Your task to perform on an android device: Open Google Image 0: 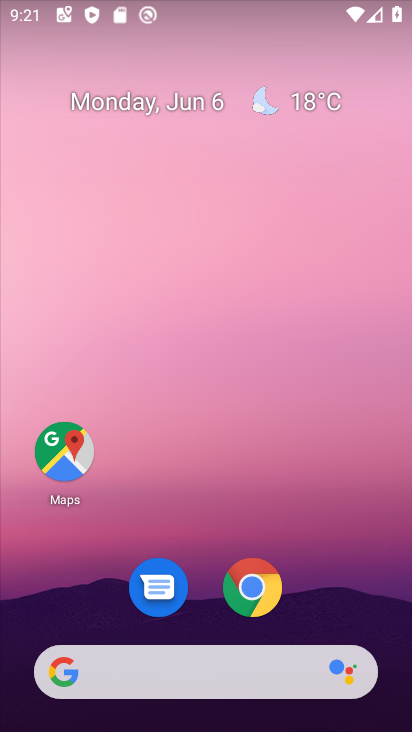
Step 0: drag from (314, 578) to (334, 18)
Your task to perform on an android device: Open Google Image 1: 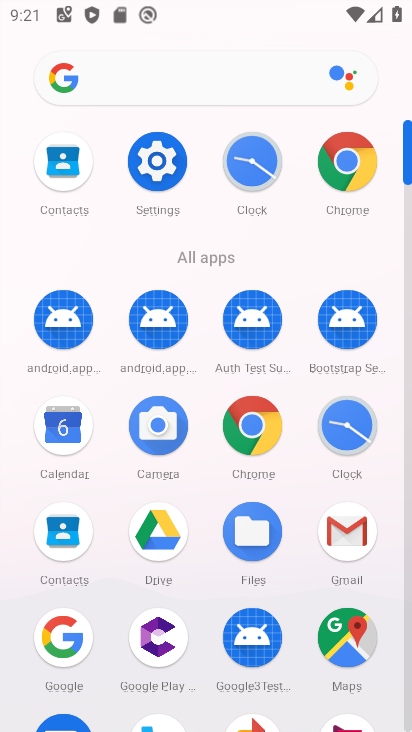
Step 1: click (58, 653)
Your task to perform on an android device: Open Google Image 2: 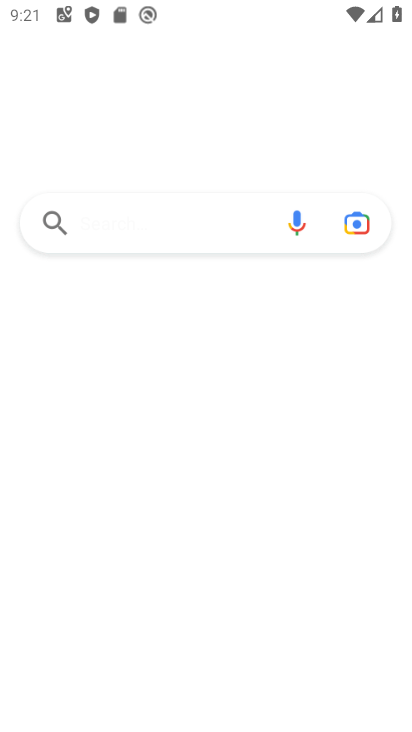
Step 2: click (67, 640)
Your task to perform on an android device: Open Google Image 3: 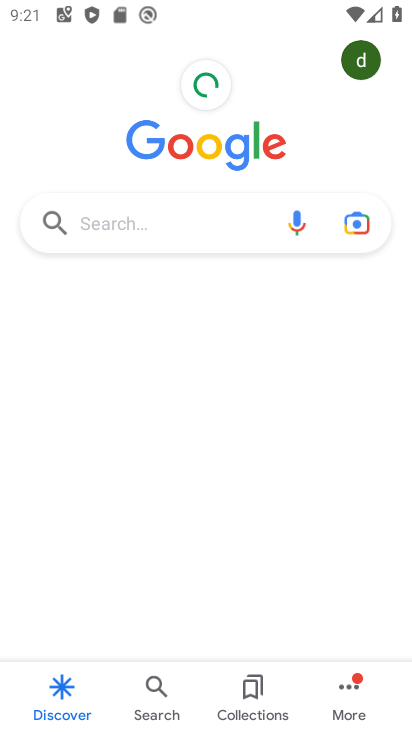
Step 3: task complete